Your task to perform on an android device: Set the phone to "Do not disturb". Image 0: 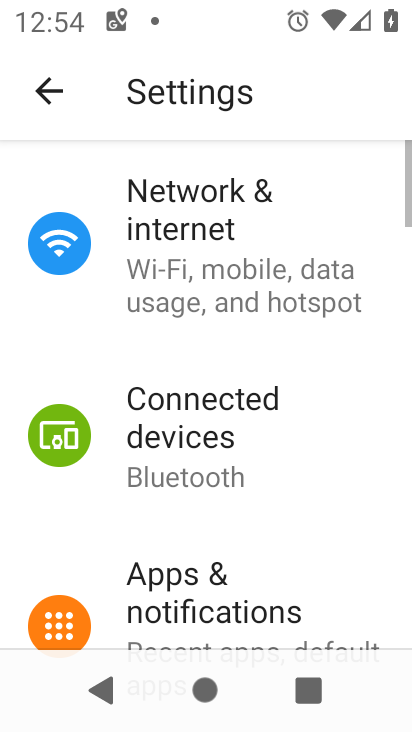
Step 0: press home button
Your task to perform on an android device: Set the phone to "Do not disturb". Image 1: 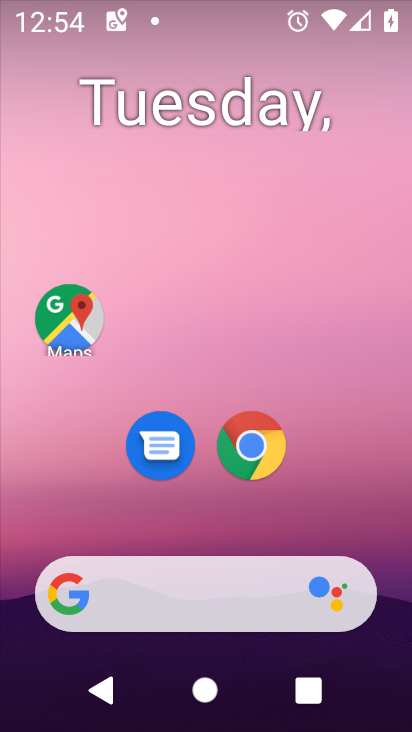
Step 1: drag from (246, 9) to (196, 573)
Your task to perform on an android device: Set the phone to "Do not disturb". Image 2: 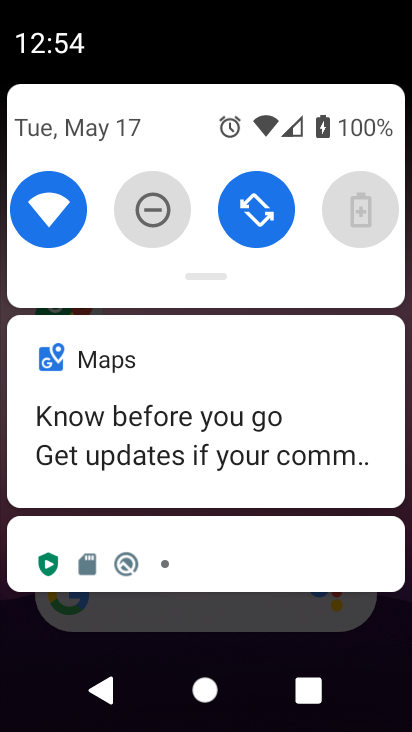
Step 2: click (152, 196)
Your task to perform on an android device: Set the phone to "Do not disturb". Image 3: 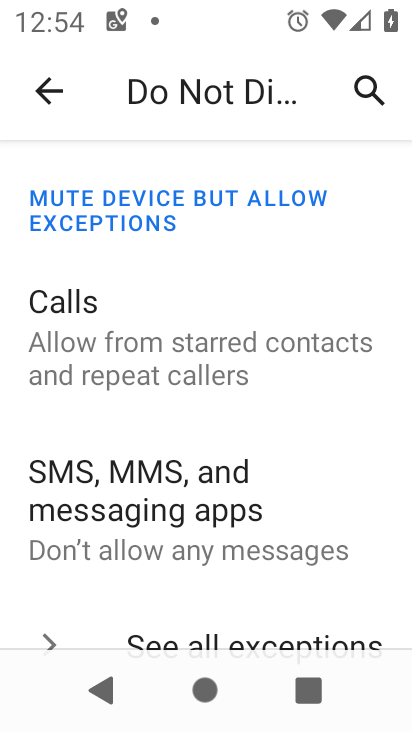
Step 3: drag from (265, 591) to (271, 216)
Your task to perform on an android device: Set the phone to "Do not disturb". Image 4: 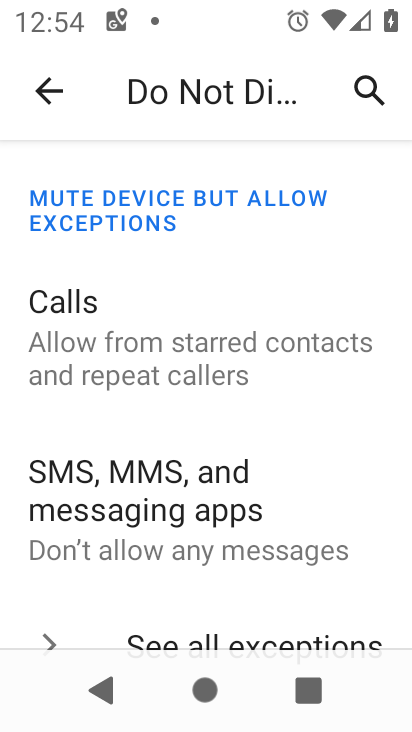
Step 4: drag from (154, 593) to (306, 247)
Your task to perform on an android device: Set the phone to "Do not disturb". Image 5: 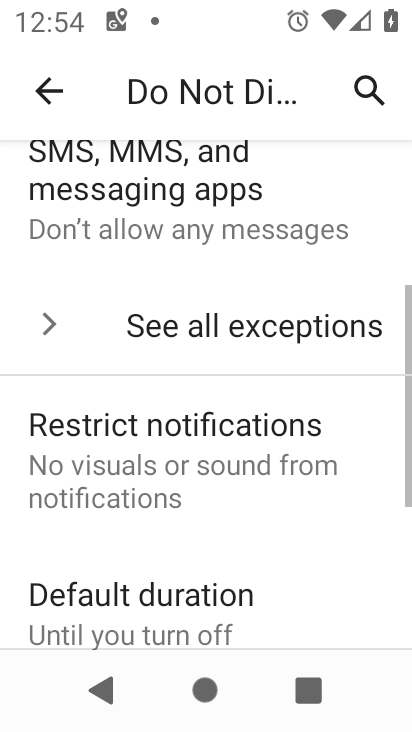
Step 5: drag from (226, 558) to (276, 235)
Your task to perform on an android device: Set the phone to "Do not disturb". Image 6: 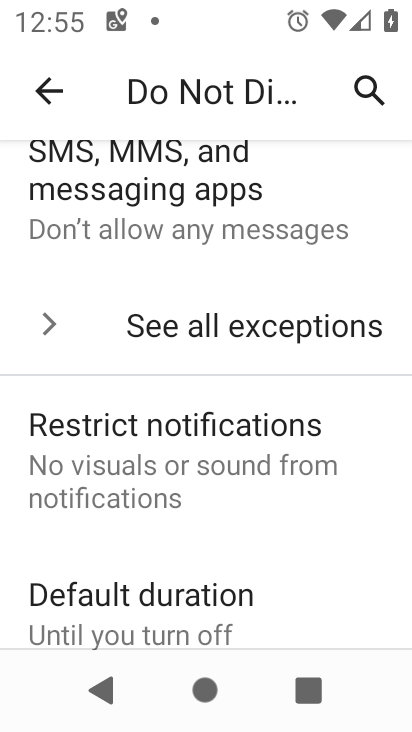
Step 6: drag from (169, 612) to (264, 107)
Your task to perform on an android device: Set the phone to "Do not disturb". Image 7: 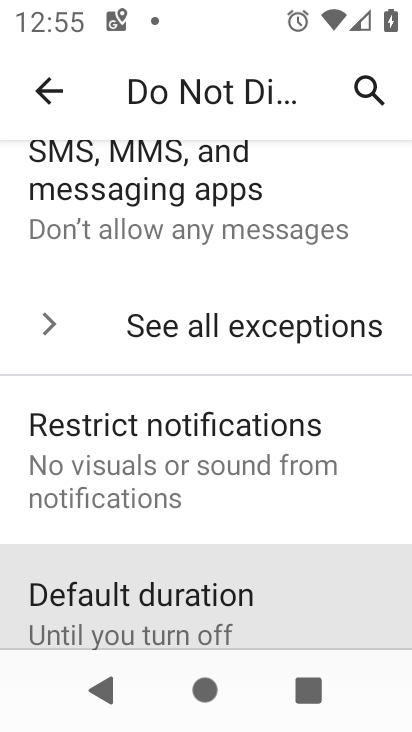
Step 7: drag from (248, 489) to (291, 228)
Your task to perform on an android device: Set the phone to "Do not disturb". Image 8: 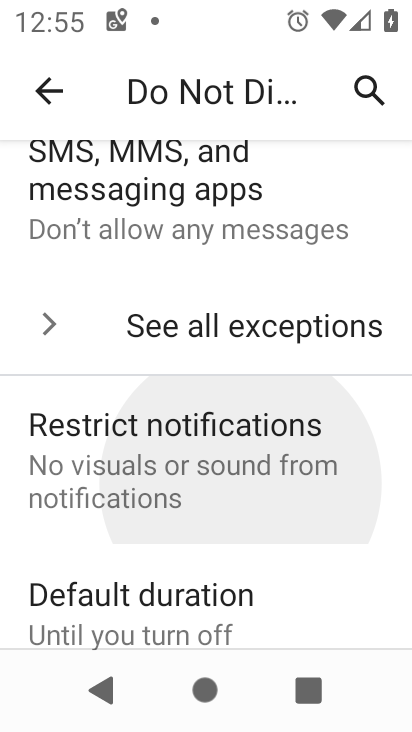
Step 8: drag from (197, 540) to (213, 225)
Your task to perform on an android device: Set the phone to "Do not disturb". Image 9: 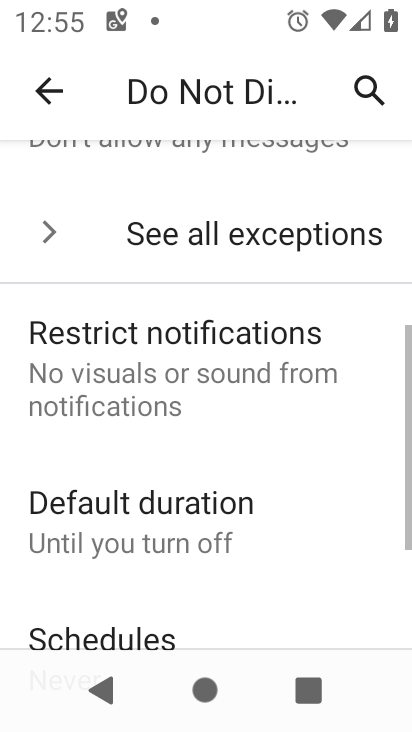
Step 9: drag from (182, 524) to (292, 173)
Your task to perform on an android device: Set the phone to "Do not disturb". Image 10: 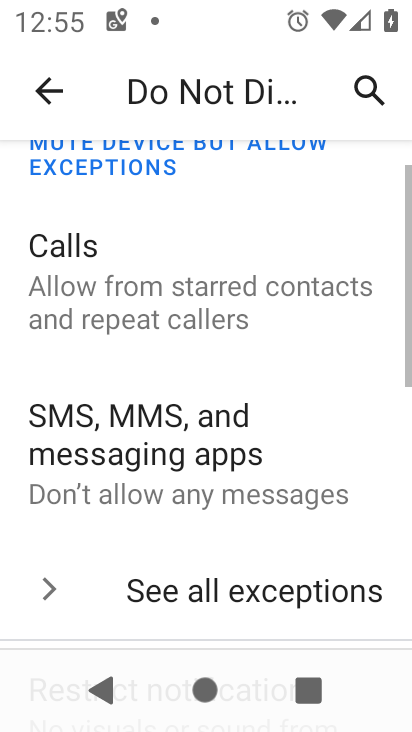
Step 10: drag from (230, 533) to (270, 295)
Your task to perform on an android device: Set the phone to "Do not disturb". Image 11: 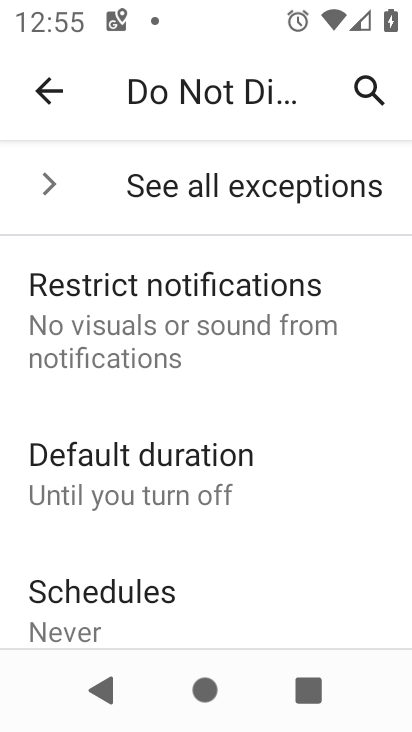
Step 11: drag from (208, 587) to (223, 76)
Your task to perform on an android device: Set the phone to "Do not disturb". Image 12: 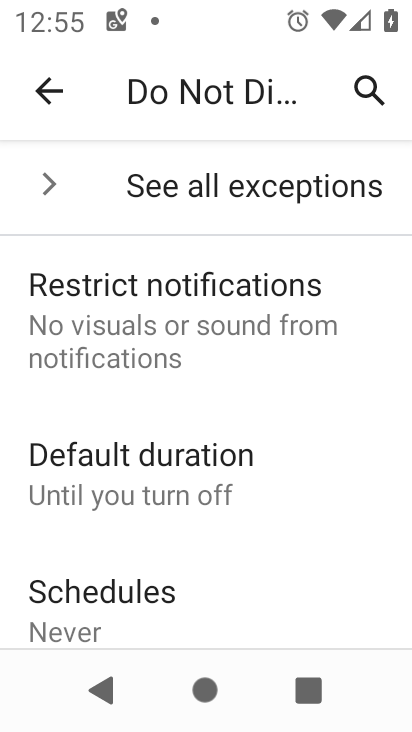
Step 12: drag from (221, 563) to (246, 206)
Your task to perform on an android device: Set the phone to "Do not disturb". Image 13: 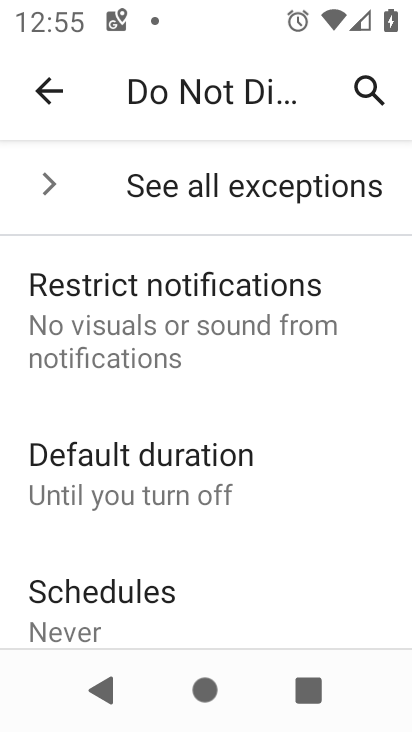
Step 13: drag from (171, 451) to (291, 247)
Your task to perform on an android device: Set the phone to "Do not disturb". Image 14: 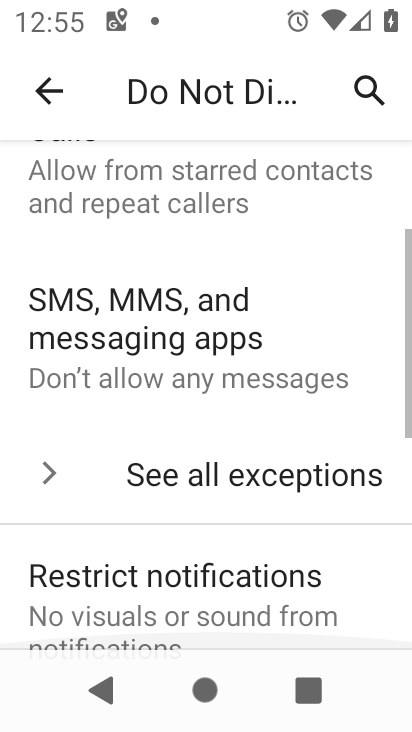
Step 14: drag from (221, 559) to (305, 191)
Your task to perform on an android device: Set the phone to "Do not disturb". Image 15: 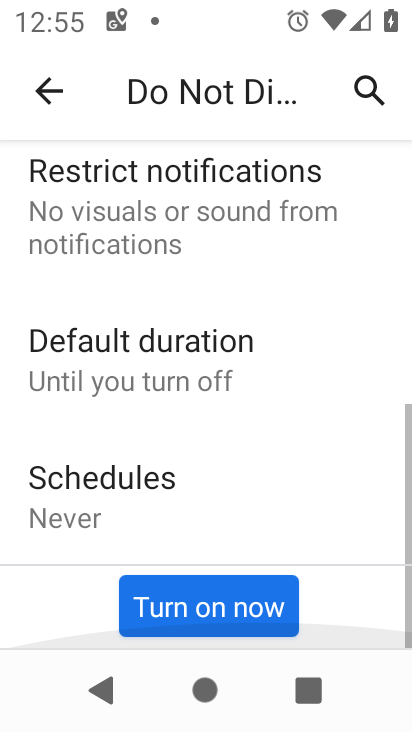
Step 15: drag from (189, 535) to (245, 170)
Your task to perform on an android device: Set the phone to "Do not disturb". Image 16: 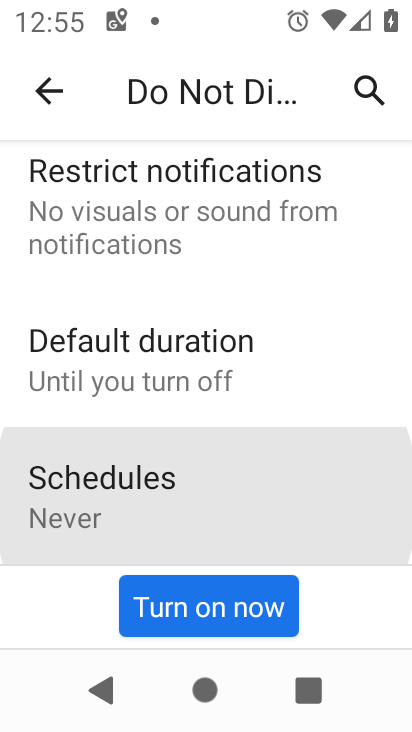
Step 16: drag from (174, 619) to (204, 433)
Your task to perform on an android device: Set the phone to "Do not disturb". Image 17: 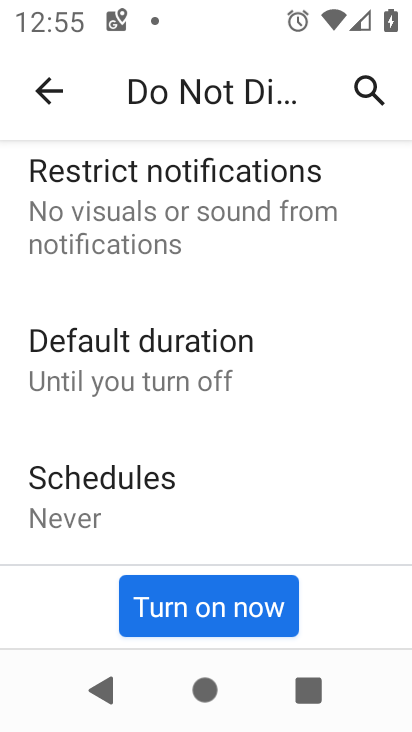
Step 17: click (191, 616)
Your task to perform on an android device: Set the phone to "Do not disturb". Image 18: 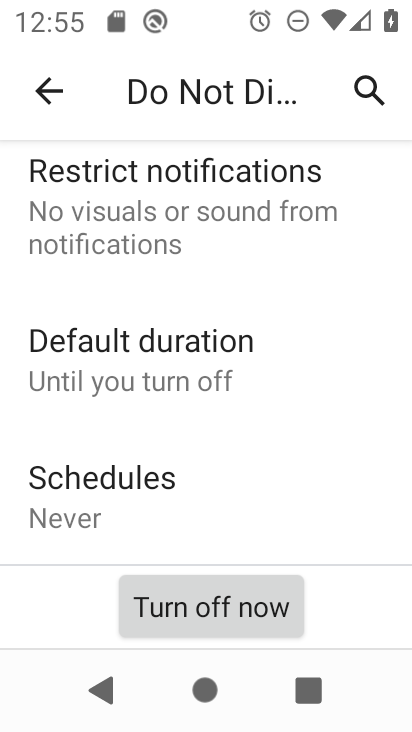
Step 18: task complete